Your task to perform on an android device: toggle javascript in the chrome app Image 0: 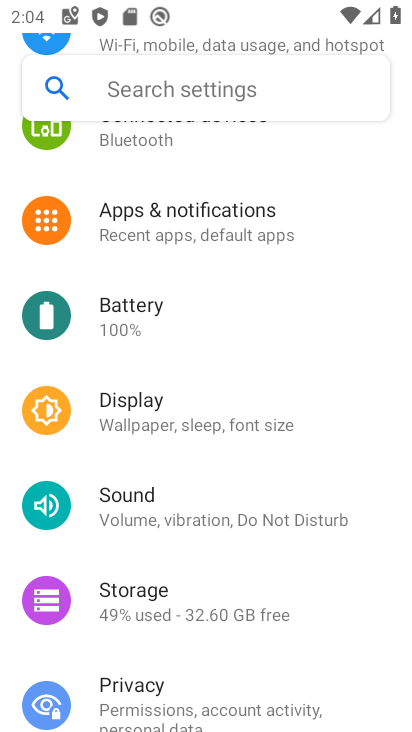
Step 0: press home button
Your task to perform on an android device: toggle javascript in the chrome app Image 1: 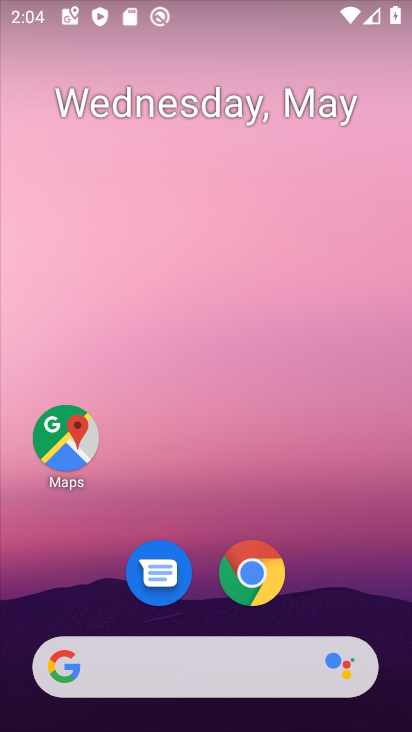
Step 1: click (246, 570)
Your task to perform on an android device: toggle javascript in the chrome app Image 2: 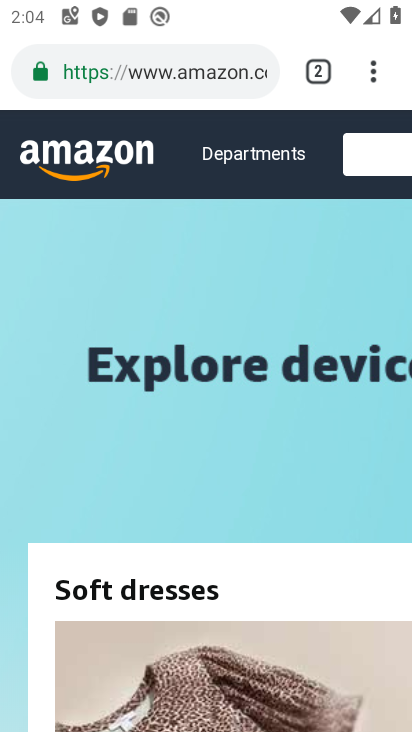
Step 2: click (373, 61)
Your task to perform on an android device: toggle javascript in the chrome app Image 3: 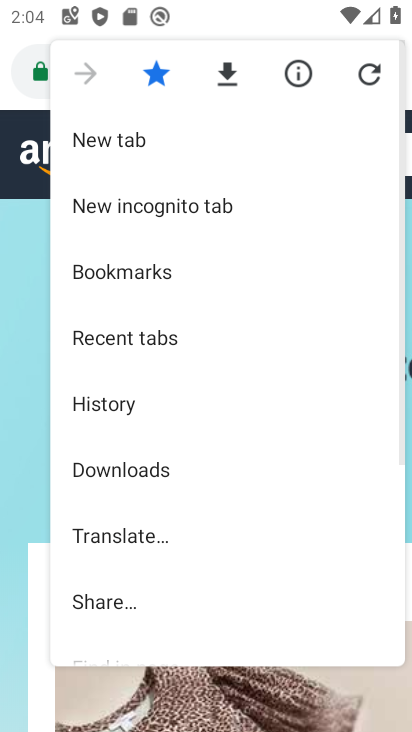
Step 3: drag from (166, 618) to (220, 195)
Your task to perform on an android device: toggle javascript in the chrome app Image 4: 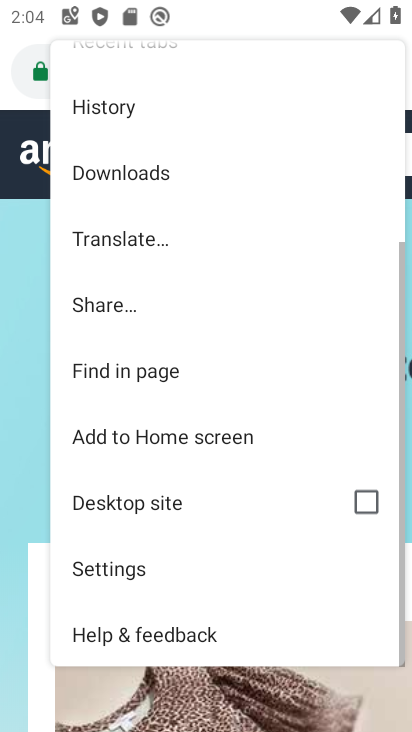
Step 4: click (102, 562)
Your task to perform on an android device: toggle javascript in the chrome app Image 5: 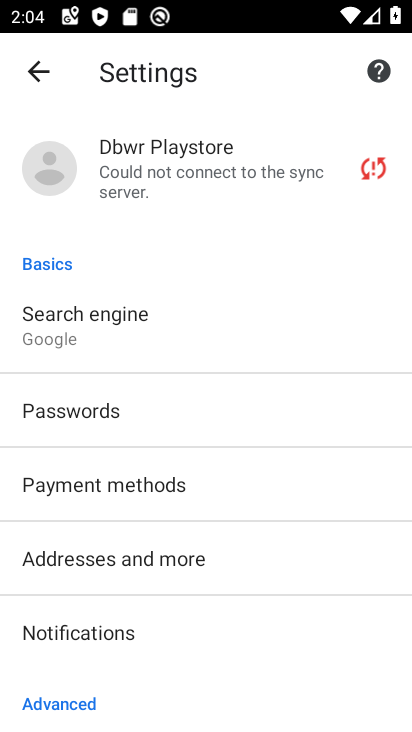
Step 5: drag from (252, 655) to (357, 132)
Your task to perform on an android device: toggle javascript in the chrome app Image 6: 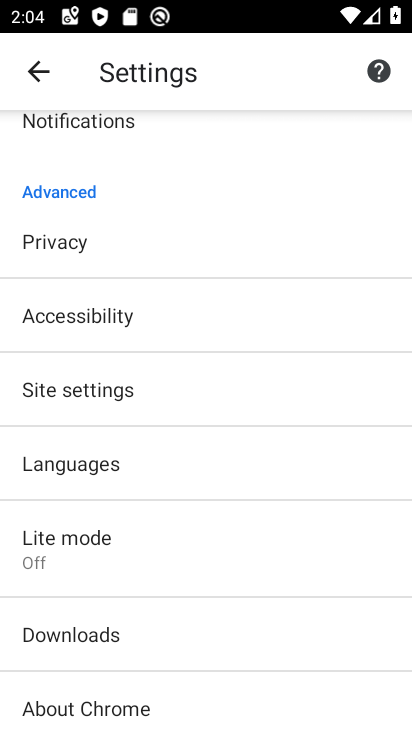
Step 6: click (143, 374)
Your task to perform on an android device: toggle javascript in the chrome app Image 7: 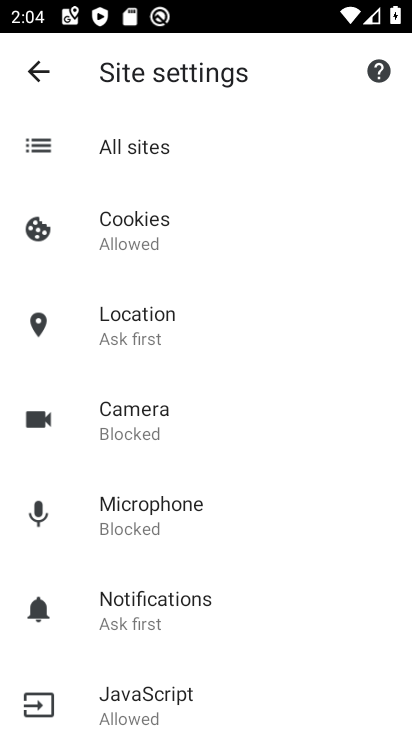
Step 7: click (125, 684)
Your task to perform on an android device: toggle javascript in the chrome app Image 8: 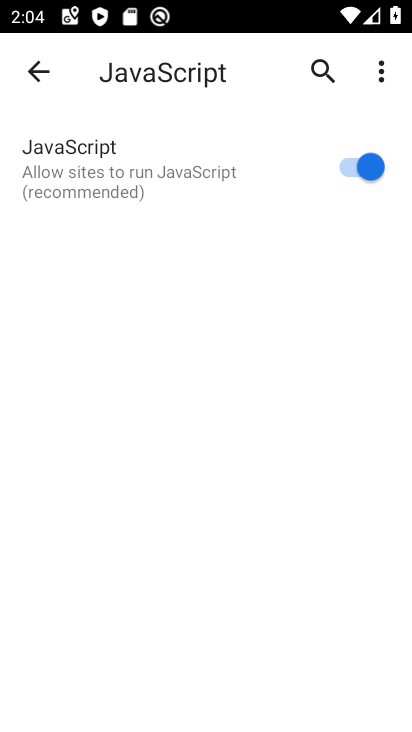
Step 8: click (352, 189)
Your task to perform on an android device: toggle javascript in the chrome app Image 9: 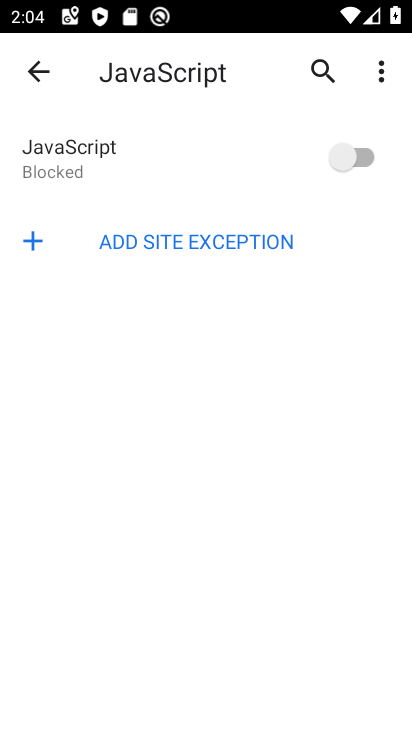
Step 9: task complete